Your task to perform on an android device: open chrome and create a bookmark for the current page Image 0: 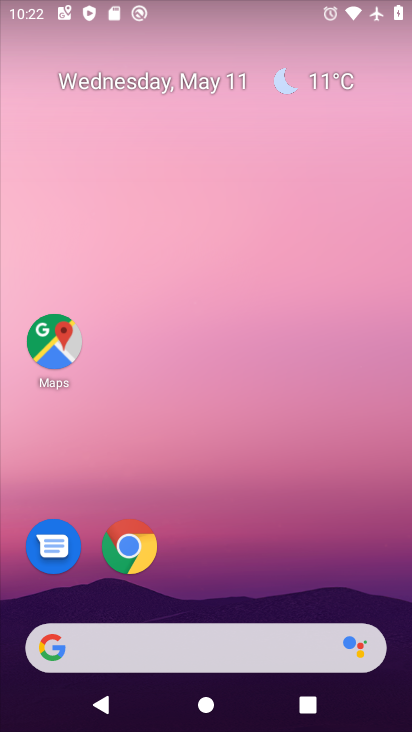
Step 0: click (128, 547)
Your task to perform on an android device: open chrome and create a bookmark for the current page Image 1: 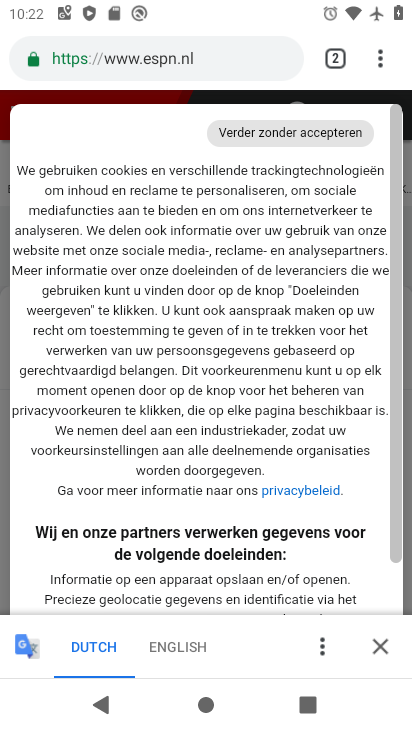
Step 1: click (379, 64)
Your task to perform on an android device: open chrome and create a bookmark for the current page Image 2: 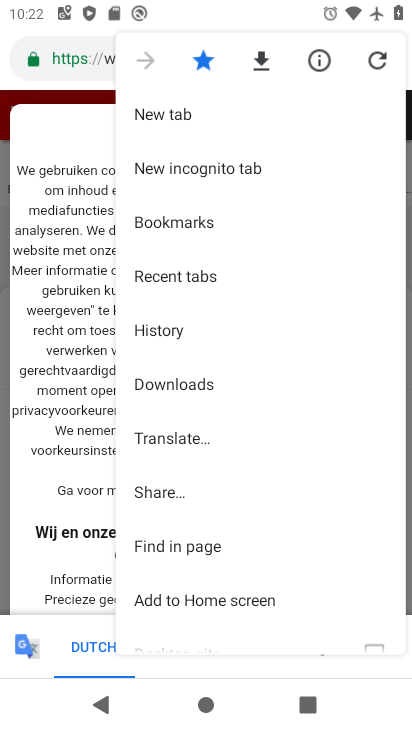
Step 2: task complete